Your task to perform on an android device: Go to wifi settings Image 0: 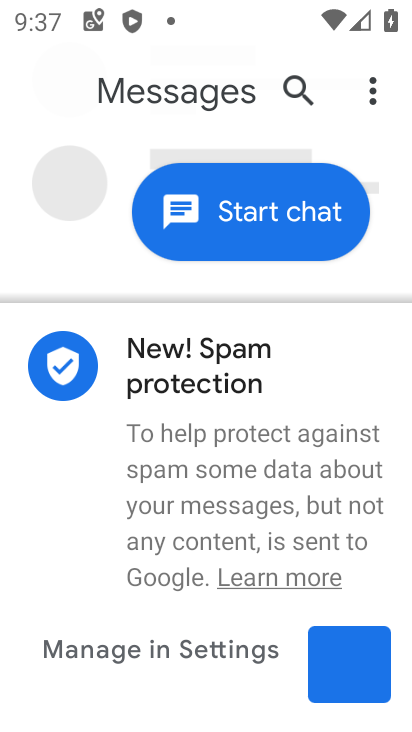
Step 0: press home button
Your task to perform on an android device: Go to wifi settings Image 1: 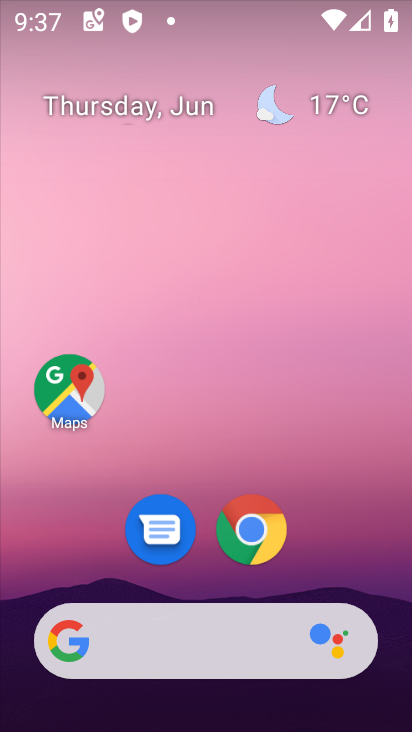
Step 1: drag from (385, 556) to (333, 90)
Your task to perform on an android device: Go to wifi settings Image 2: 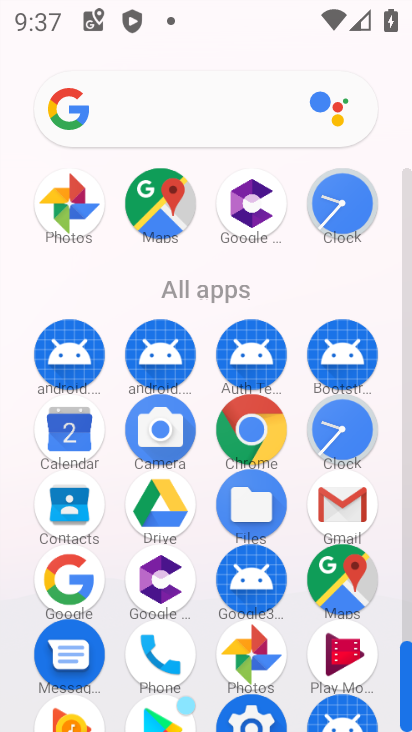
Step 2: drag from (409, 624) to (388, 533)
Your task to perform on an android device: Go to wifi settings Image 3: 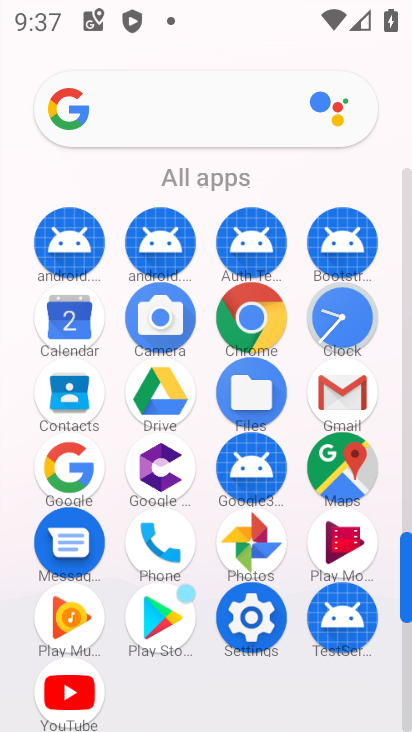
Step 3: click (252, 614)
Your task to perform on an android device: Go to wifi settings Image 4: 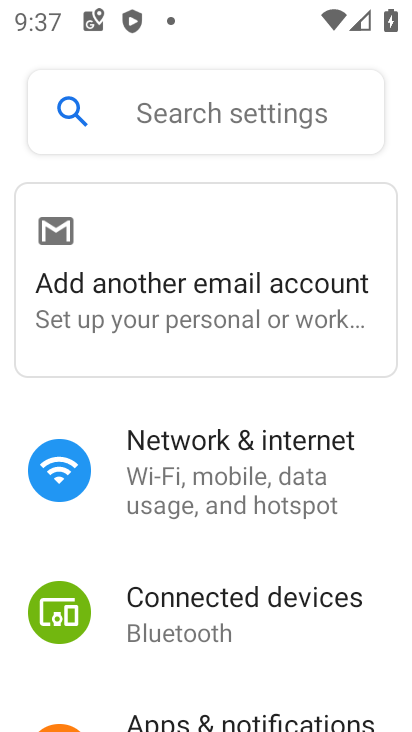
Step 4: click (176, 477)
Your task to perform on an android device: Go to wifi settings Image 5: 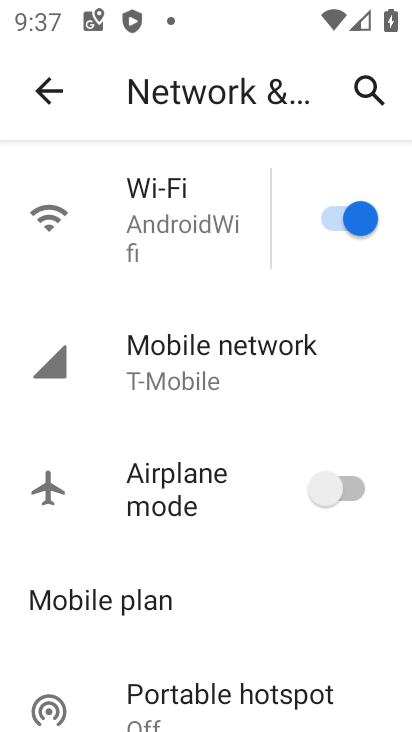
Step 5: click (136, 205)
Your task to perform on an android device: Go to wifi settings Image 6: 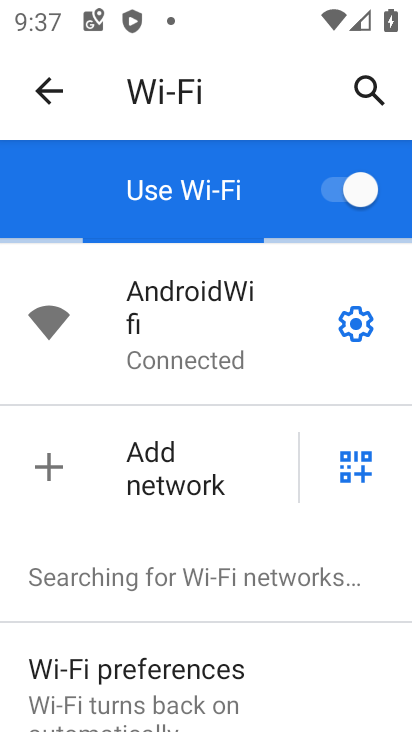
Step 6: drag from (253, 646) to (218, 249)
Your task to perform on an android device: Go to wifi settings Image 7: 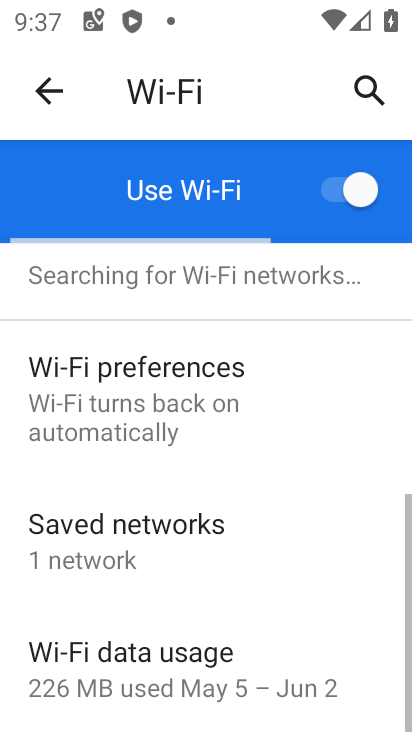
Step 7: drag from (241, 304) to (273, 637)
Your task to perform on an android device: Go to wifi settings Image 8: 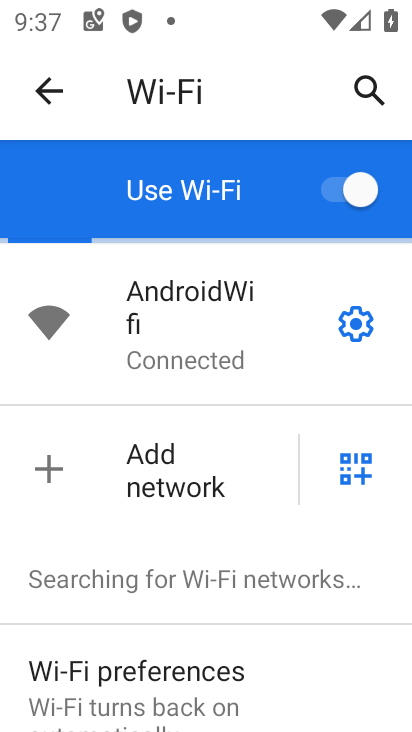
Step 8: click (352, 325)
Your task to perform on an android device: Go to wifi settings Image 9: 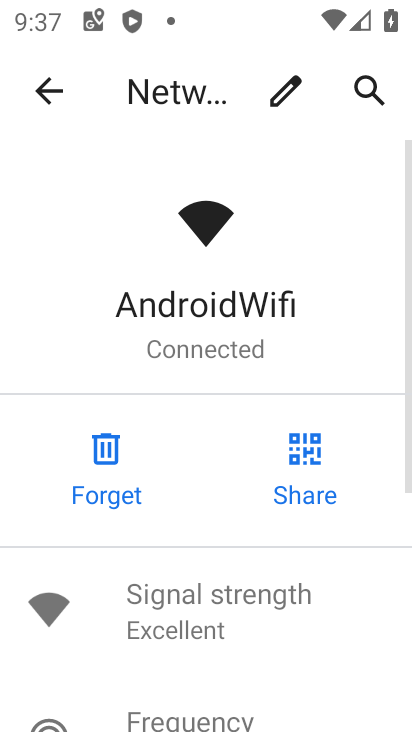
Step 9: drag from (253, 650) to (231, 177)
Your task to perform on an android device: Go to wifi settings Image 10: 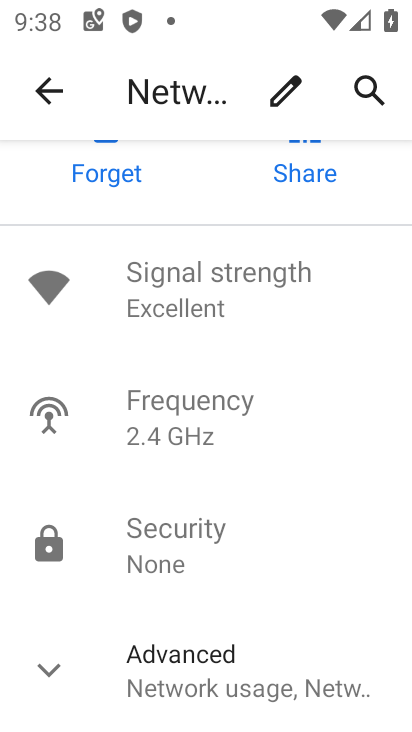
Step 10: click (41, 666)
Your task to perform on an android device: Go to wifi settings Image 11: 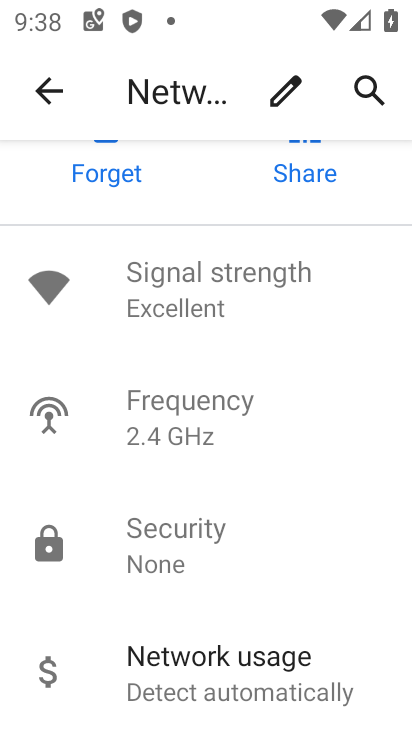
Step 11: task complete